Your task to perform on an android device: turn pop-ups on in chrome Image 0: 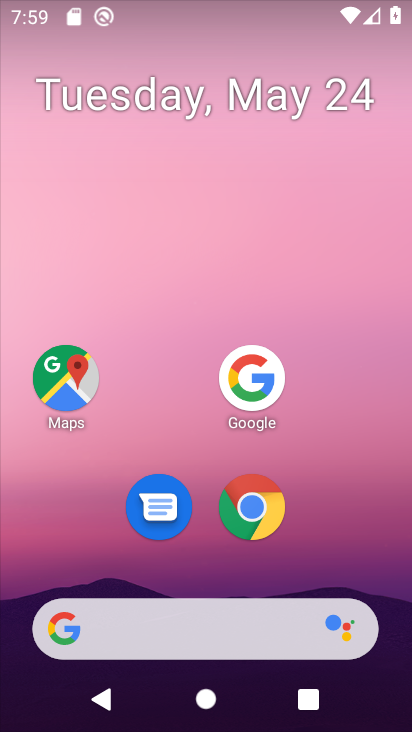
Step 0: press home button
Your task to perform on an android device: turn pop-ups on in chrome Image 1: 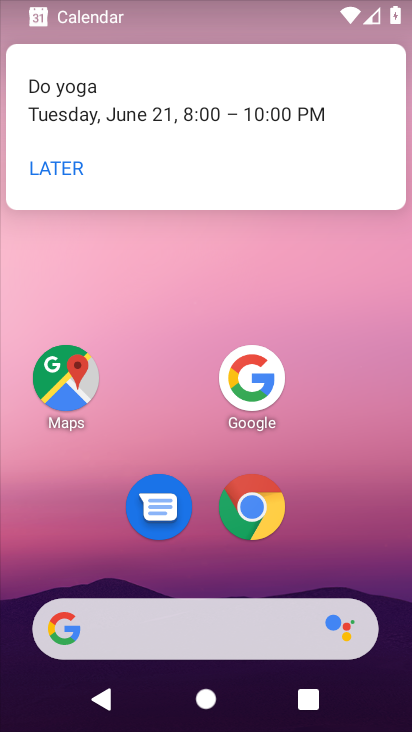
Step 1: click (256, 518)
Your task to perform on an android device: turn pop-ups on in chrome Image 2: 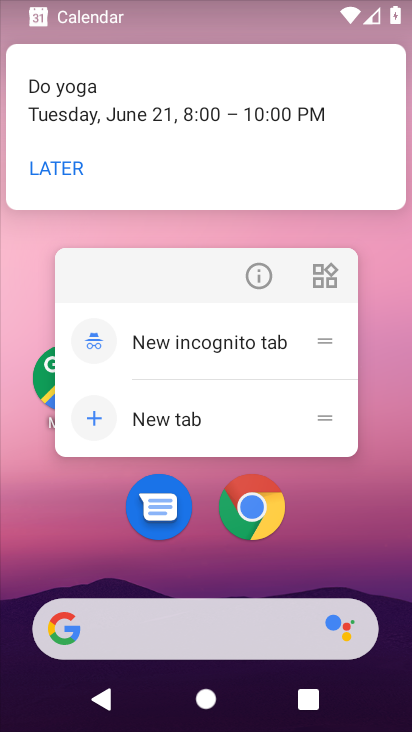
Step 2: click (256, 518)
Your task to perform on an android device: turn pop-ups on in chrome Image 3: 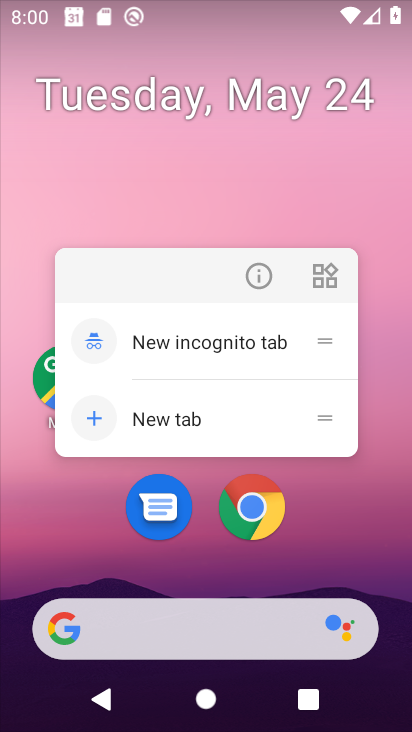
Step 3: click (256, 517)
Your task to perform on an android device: turn pop-ups on in chrome Image 4: 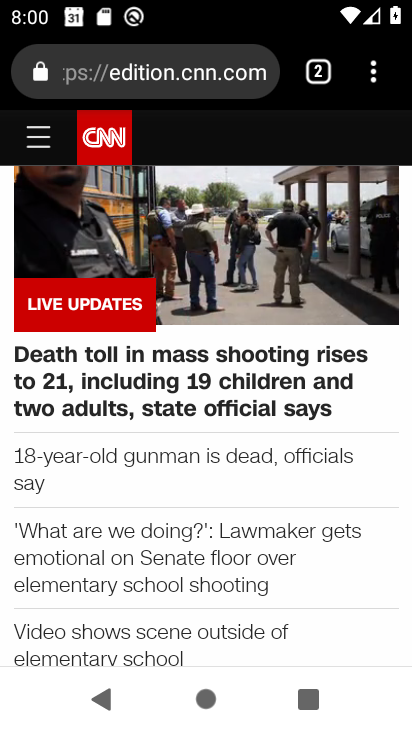
Step 4: drag from (374, 70) to (200, 493)
Your task to perform on an android device: turn pop-ups on in chrome Image 5: 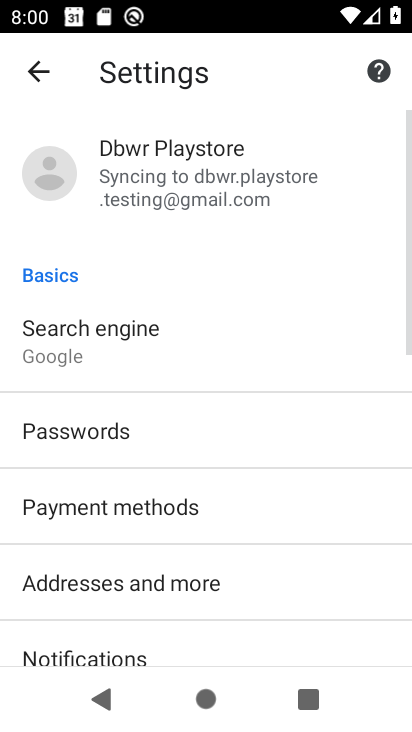
Step 5: drag from (151, 619) to (343, 167)
Your task to perform on an android device: turn pop-ups on in chrome Image 6: 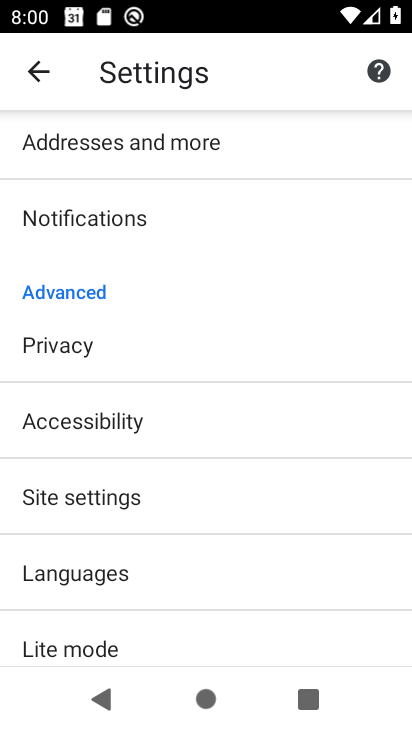
Step 6: click (100, 486)
Your task to perform on an android device: turn pop-ups on in chrome Image 7: 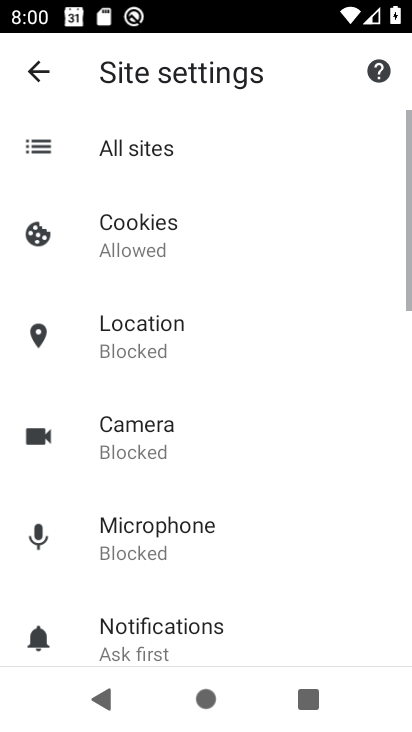
Step 7: drag from (217, 583) to (299, 171)
Your task to perform on an android device: turn pop-ups on in chrome Image 8: 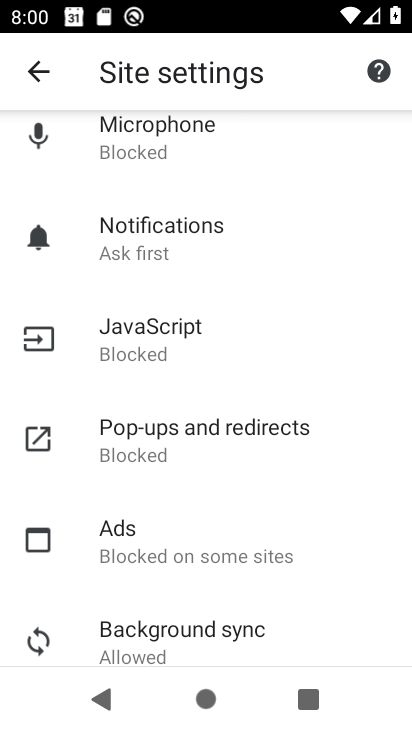
Step 8: click (178, 438)
Your task to perform on an android device: turn pop-ups on in chrome Image 9: 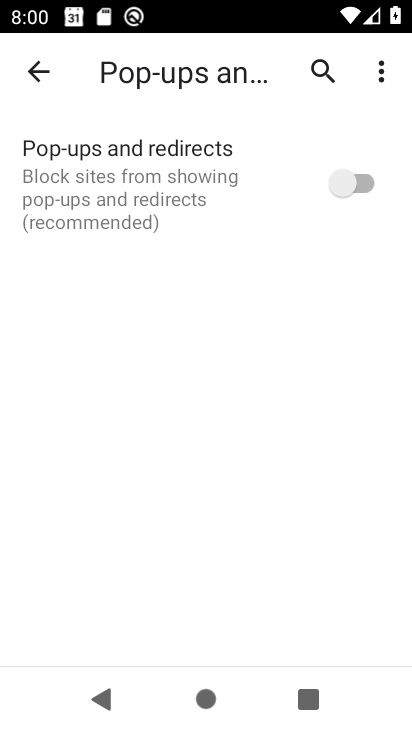
Step 9: click (369, 178)
Your task to perform on an android device: turn pop-ups on in chrome Image 10: 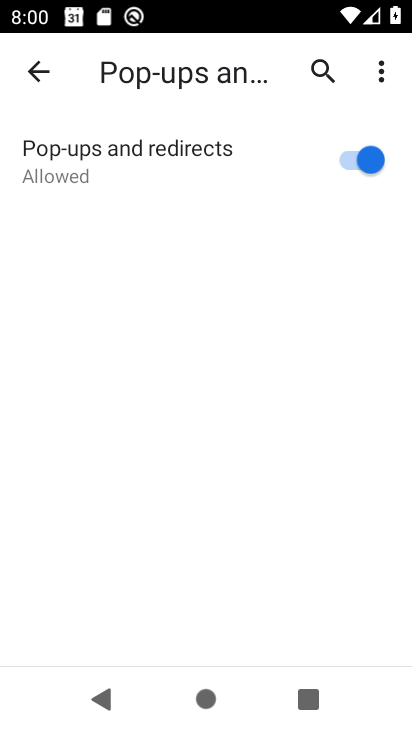
Step 10: task complete